Your task to perform on an android device: change the clock style Image 0: 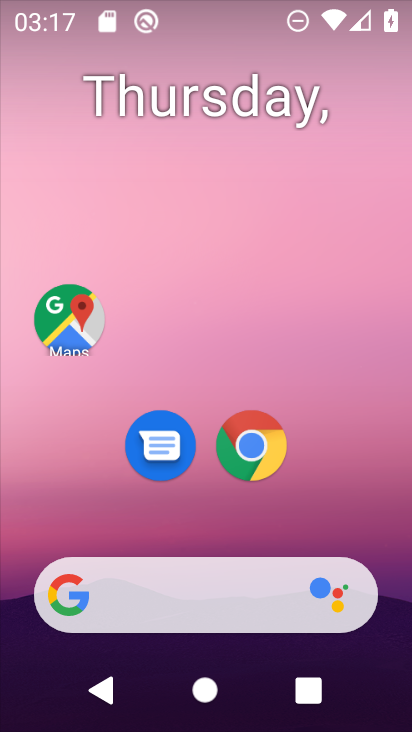
Step 0: drag from (356, 534) to (402, 36)
Your task to perform on an android device: change the clock style Image 1: 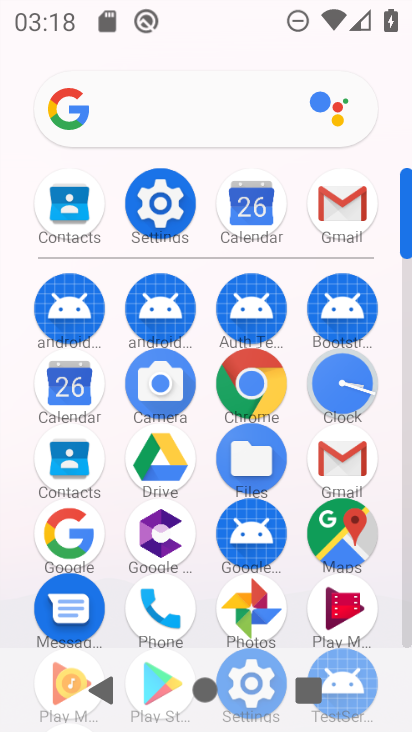
Step 1: click (344, 370)
Your task to perform on an android device: change the clock style Image 2: 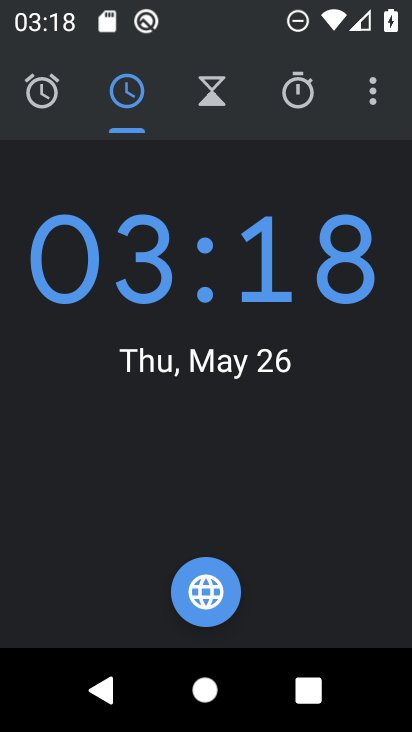
Step 2: click (379, 96)
Your task to perform on an android device: change the clock style Image 3: 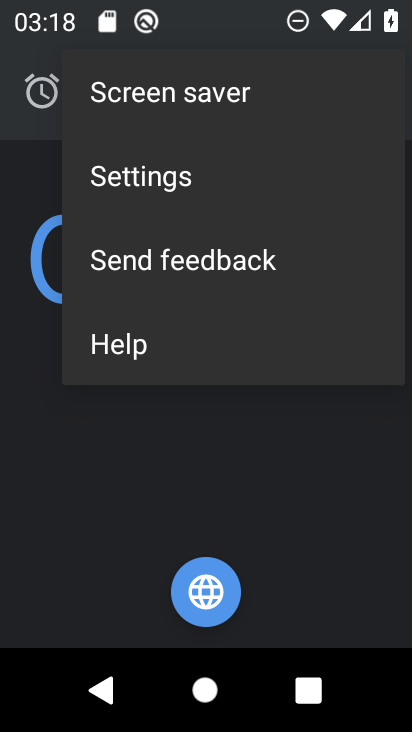
Step 3: click (135, 183)
Your task to perform on an android device: change the clock style Image 4: 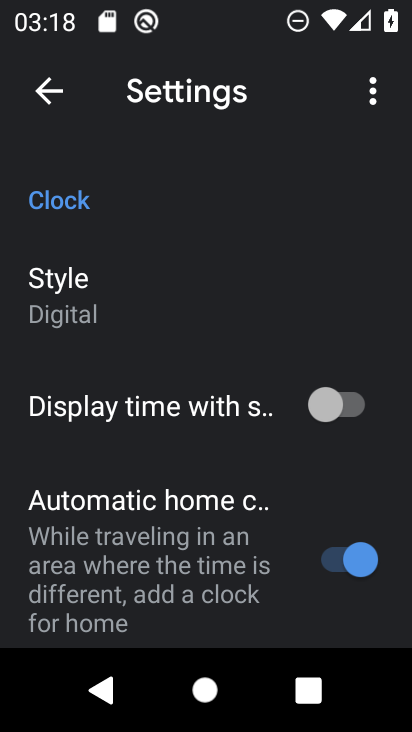
Step 4: click (85, 316)
Your task to perform on an android device: change the clock style Image 5: 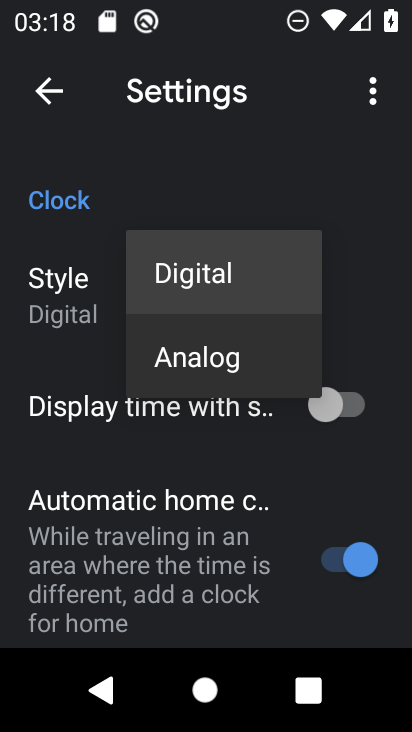
Step 5: click (174, 350)
Your task to perform on an android device: change the clock style Image 6: 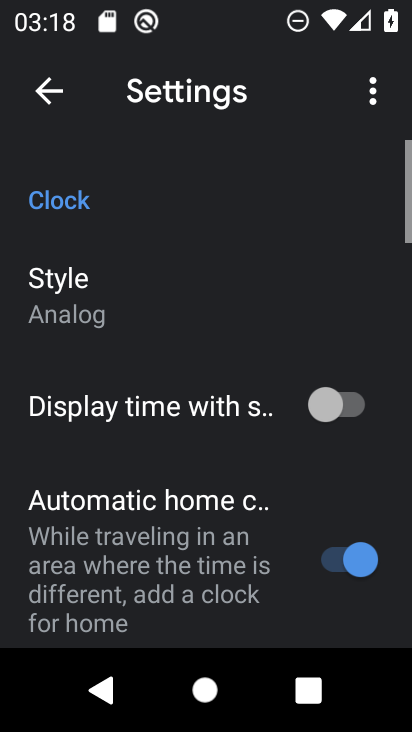
Step 6: task complete